Your task to perform on an android device: turn off data saver in the chrome app Image 0: 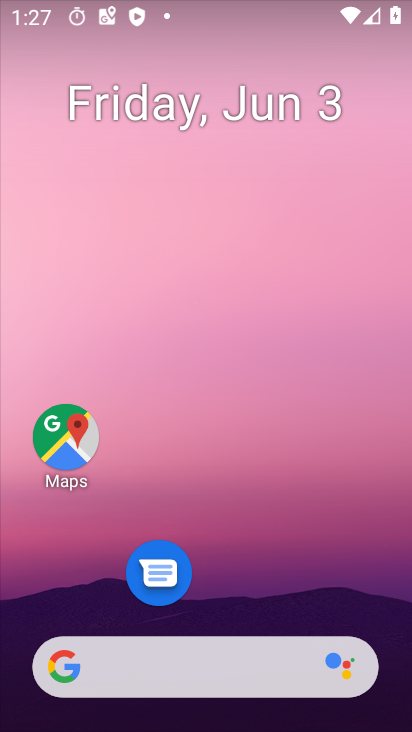
Step 0: drag from (189, 611) to (238, 4)
Your task to perform on an android device: turn off data saver in the chrome app Image 1: 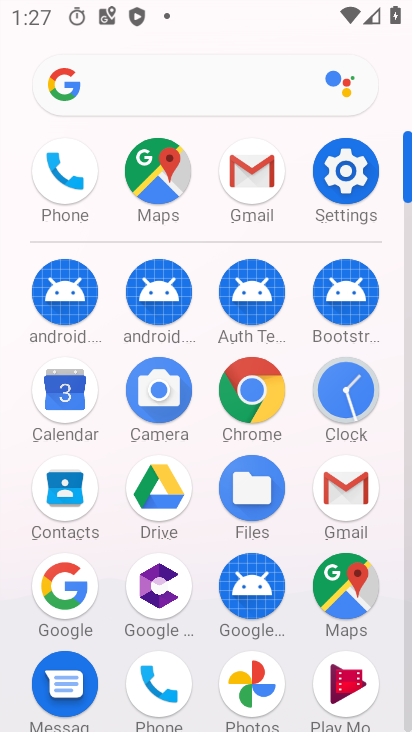
Step 1: click (271, 359)
Your task to perform on an android device: turn off data saver in the chrome app Image 2: 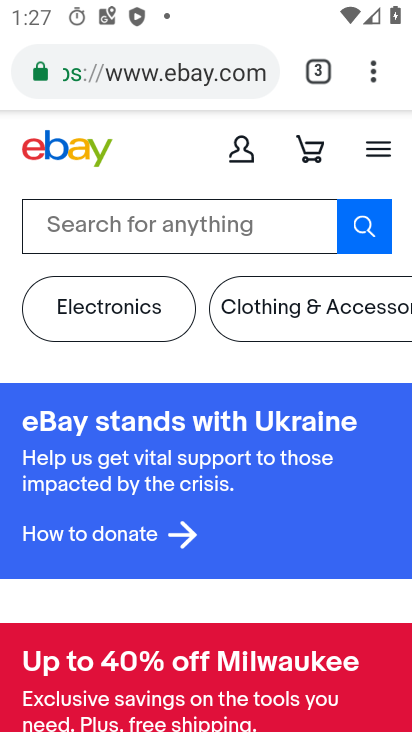
Step 2: click (376, 75)
Your task to perform on an android device: turn off data saver in the chrome app Image 3: 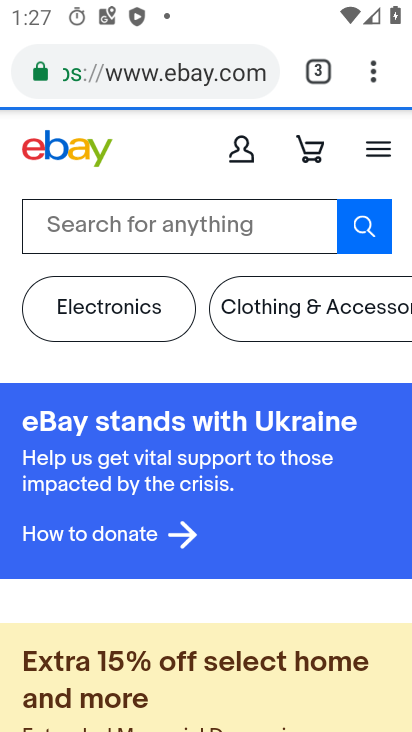
Step 3: drag from (371, 78) to (132, 586)
Your task to perform on an android device: turn off data saver in the chrome app Image 4: 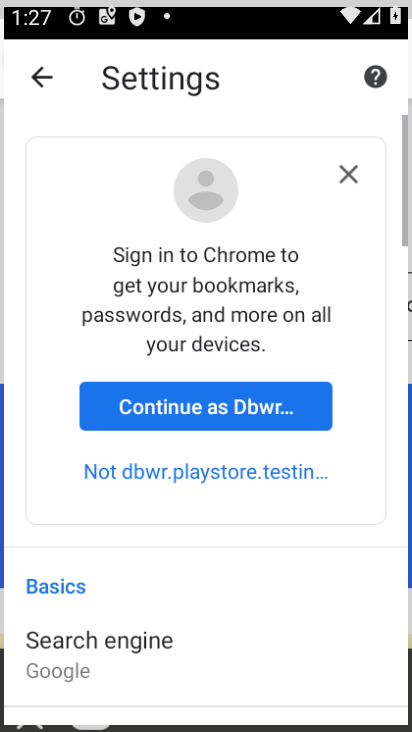
Step 4: drag from (139, 624) to (100, 4)
Your task to perform on an android device: turn off data saver in the chrome app Image 5: 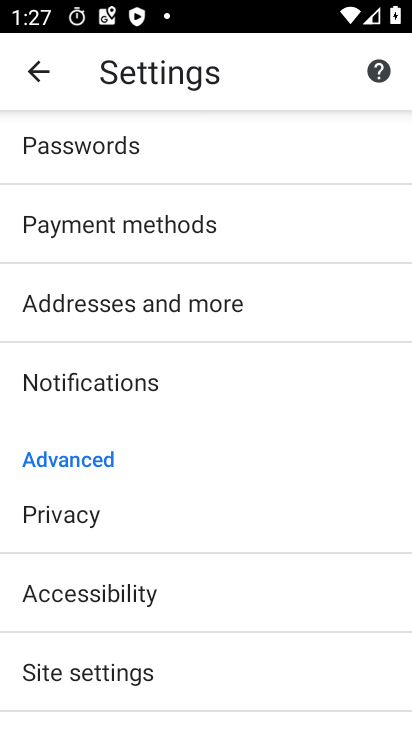
Step 5: drag from (72, 692) to (63, 367)
Your task to perform on an android device: turn off data saver in the chrome app Image 6: 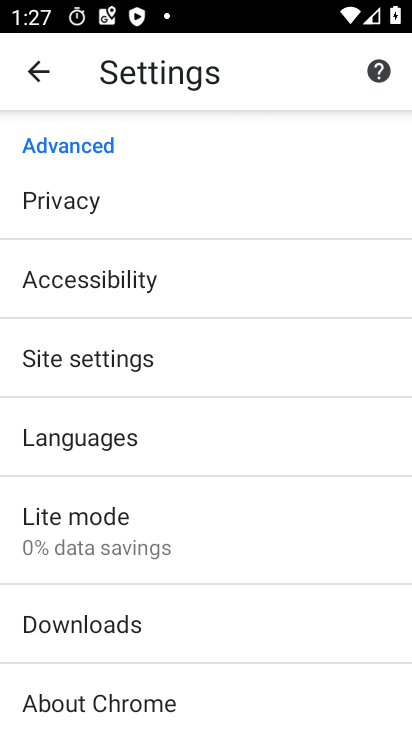
Step 6: click (85, 553)
Your task to perform on an android device: turn off data saver in the chrome app Image 7: 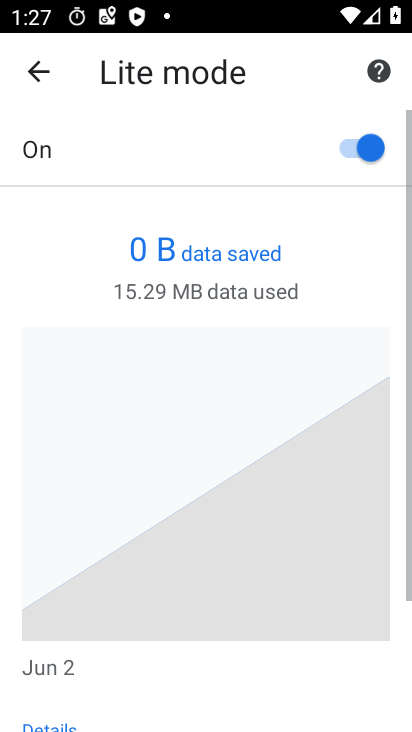
Step 7: click (367, 138)
Your task to perform on an android device: turn off data saver in the chrome app Image 8: 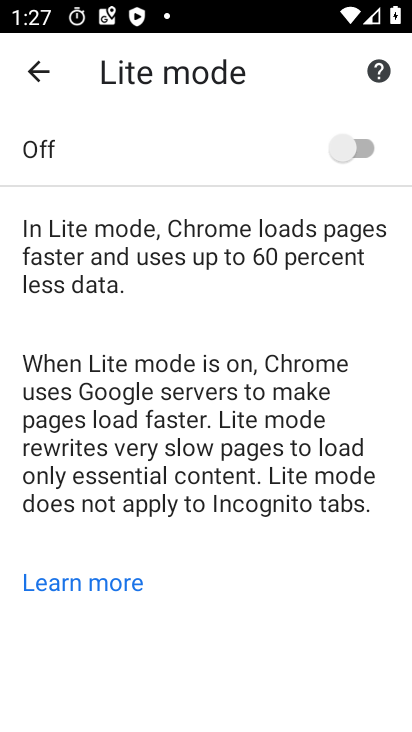
Step 8: task complete